Your task to perform on an android device: turn off sleep mode Image 0: 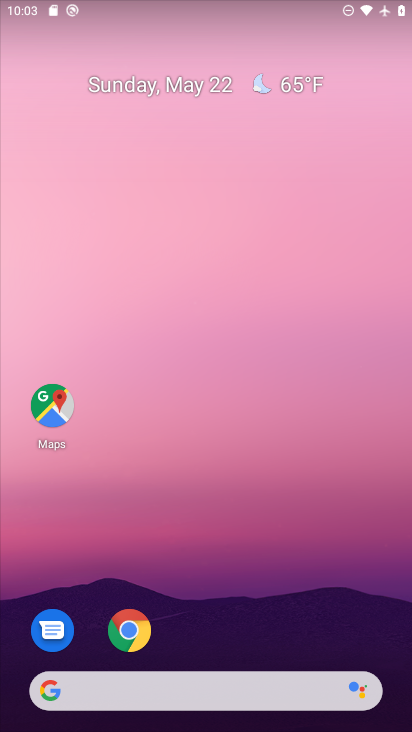
Step 0: press home button
Your task to perform on an android device: turn off sleep mode Image 1: 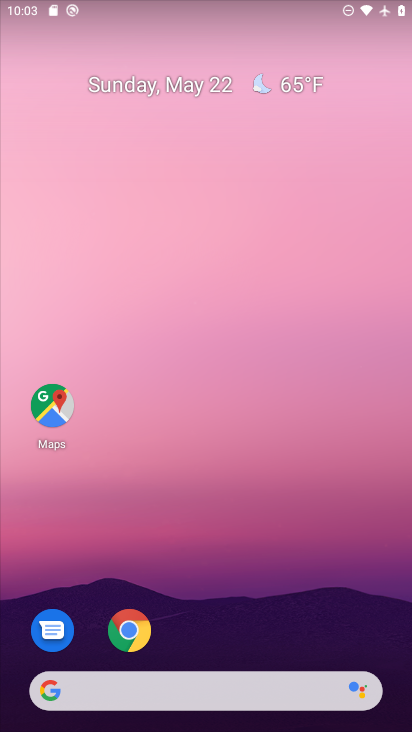
Step 1: drag from (135, 692) to (382, 36)
Your task to perform on an android device: turn off sleep mode Image 2: 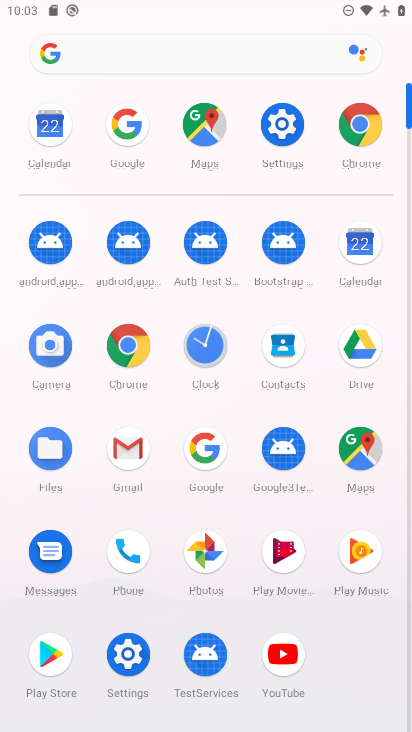
Step 2: click (281, 131)
Your task to perform on an android device: turn off sleep mode Image 3: 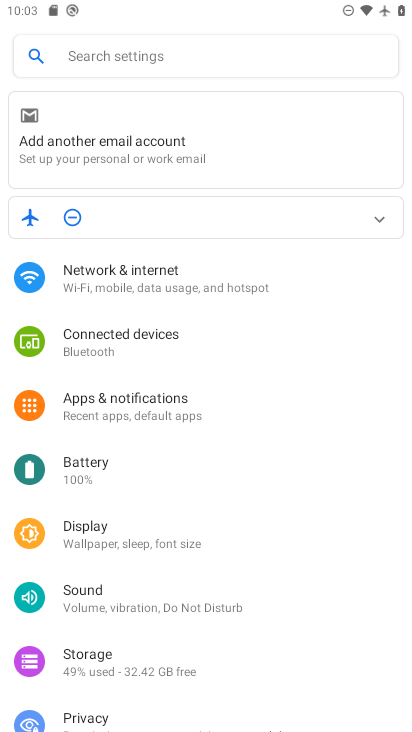
Step 3: click (120, 535)
Your task to perform on an android device: turn off sleep mode Image 4: 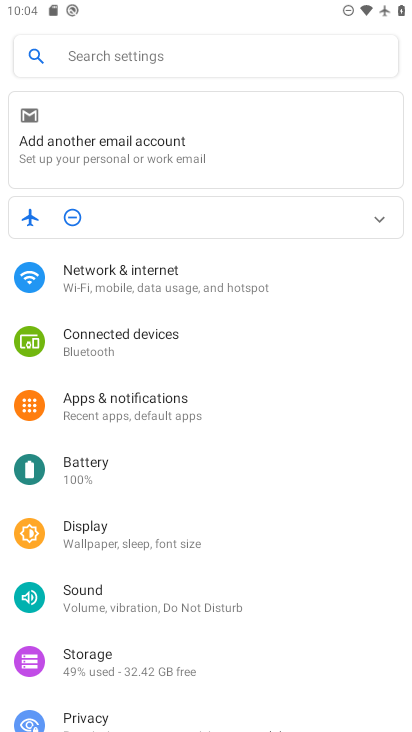
Step 4: click (163, 544)
Your task to perform on an android device: turn off sleep mode Image 5: 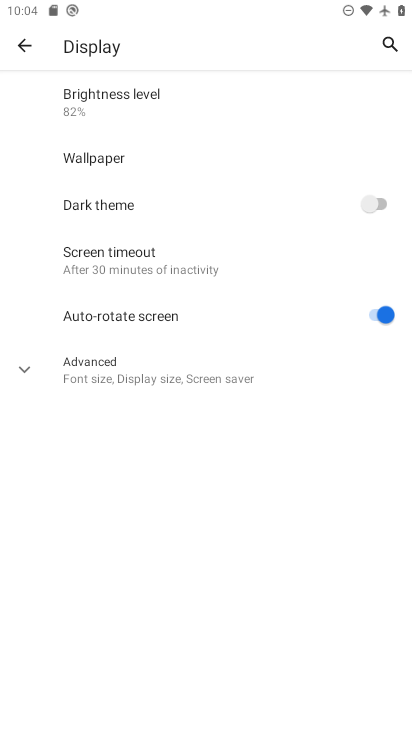
Step 5: task complete